Your task to perform on an android device: turn on bluetooth scan Image 0: 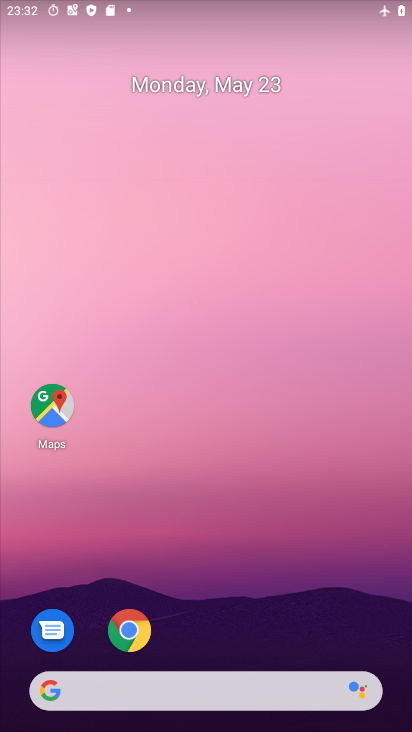
Step 0: drag from (248, 642) to (147, 0)
Your task to perform on an android device: turn on bluetooth scan Image 1: 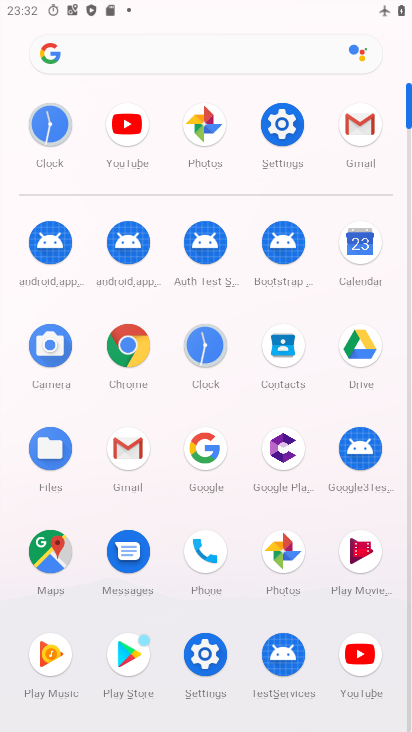
Step 1: click (281, 121)
Your task to perform on an android device: turn on bluetooth scan Image 2: 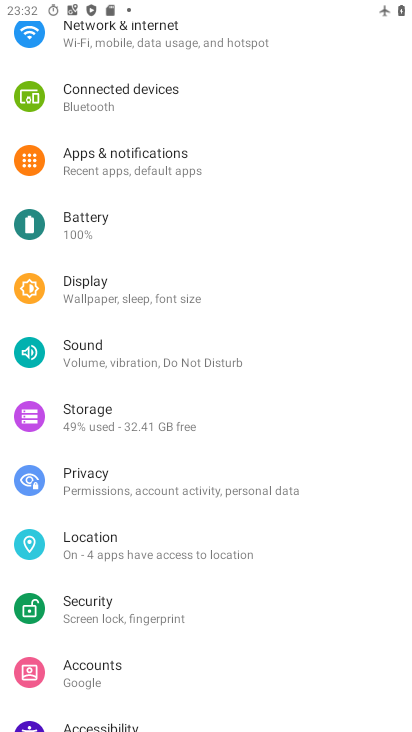
Step 2: click (82, 543)
Your task to perform on an android device: turn on bluetooth scan Image 3: 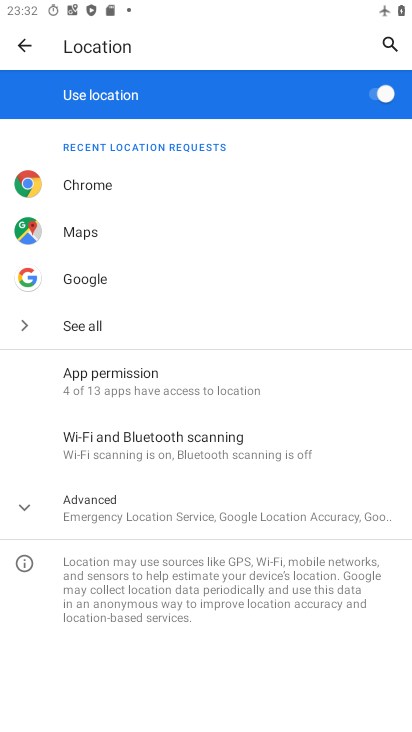
Step 3: click (82, 456)
Your task to perform on an android device: turn on bluetooth scan Image 4: 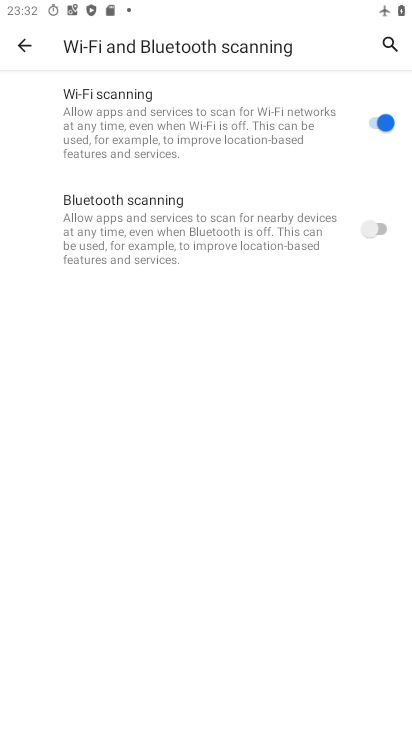
Step 4: click (370, 233)
Your task to perform on an android device: turn on bluetooth scan Image 5: 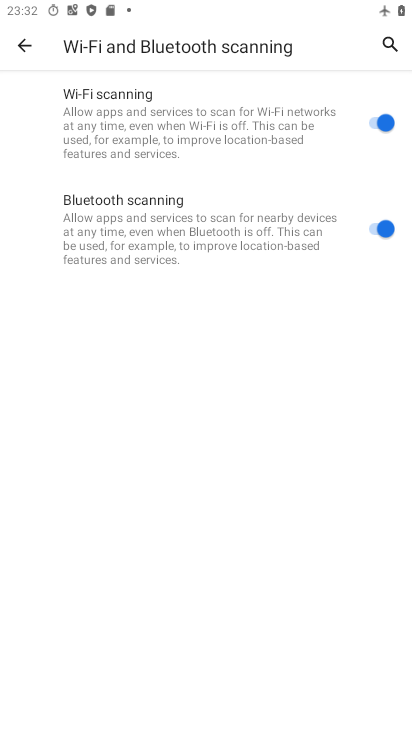
Step 5: task complete